Your task to perform on an android device: turn on javascript in the chrome app Image 0: 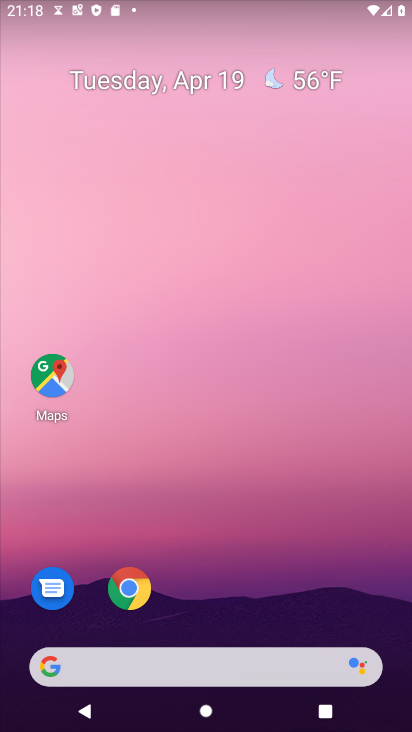
Step 0: click (127, 589)
Your task to perform on an android device: turn on javascript in the chrome app Image 1: 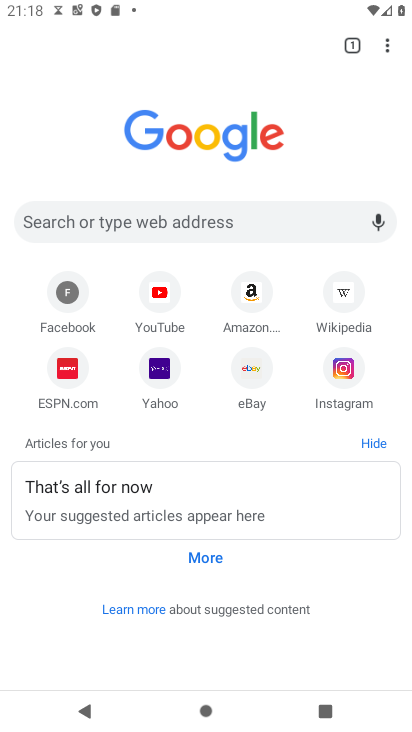
Step 1: click (390, 49)
Your task to perform on an android device: turn on javascript in the chrome app Image 2: 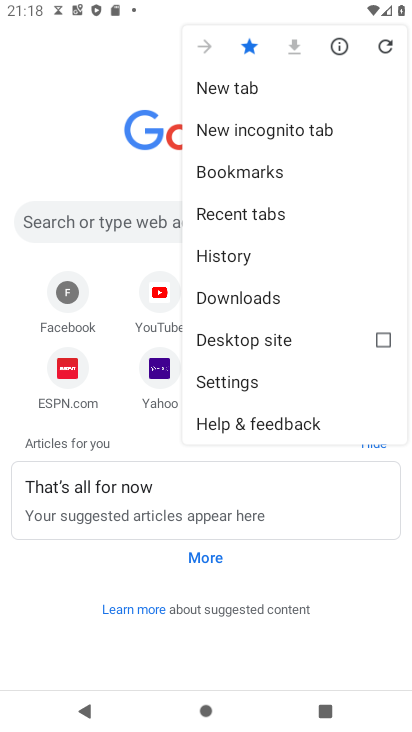
Step 2: click (240, 384)
Your task to perform on an android device: turn on javascript in the chrome app Image 3: 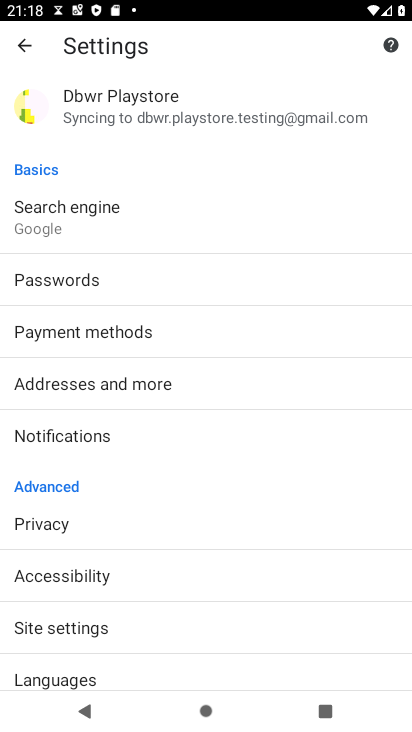
Step 3: click (73, 625)
Your task to perform on an android device: turn on javascript in the chrome app Image 4: 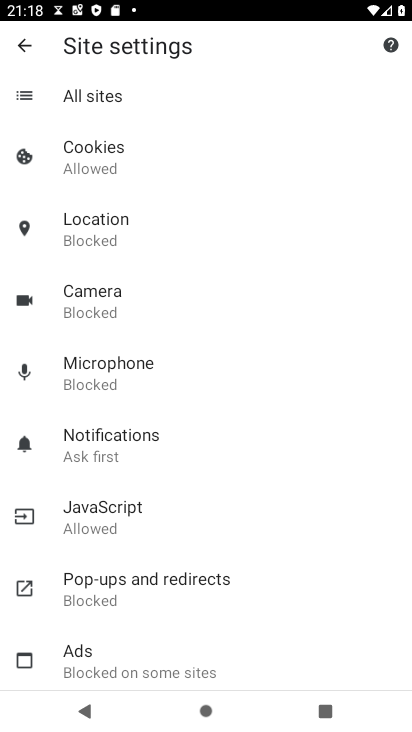
Step 4: click (97, 511)
Your task to perform on an android device: turn on javascript in the chrome app Image 5: 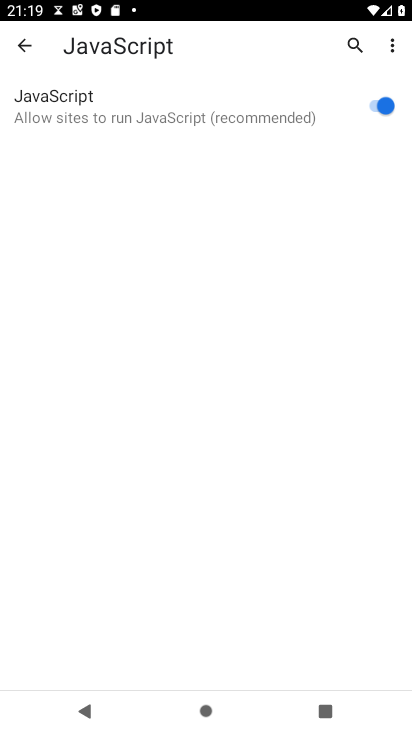
Step 5: task complete